Your task to perform on an android device: Open Yahoo.com Image 0: 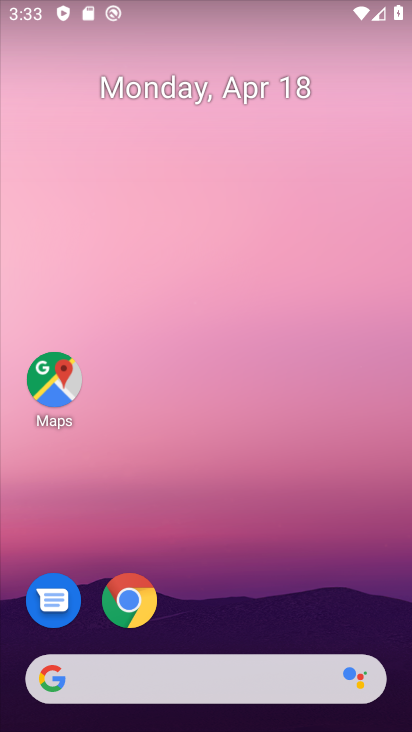
Step 0: click (136, 595)
Your task to perform on an android device: Open Yahoo.com Image 1: 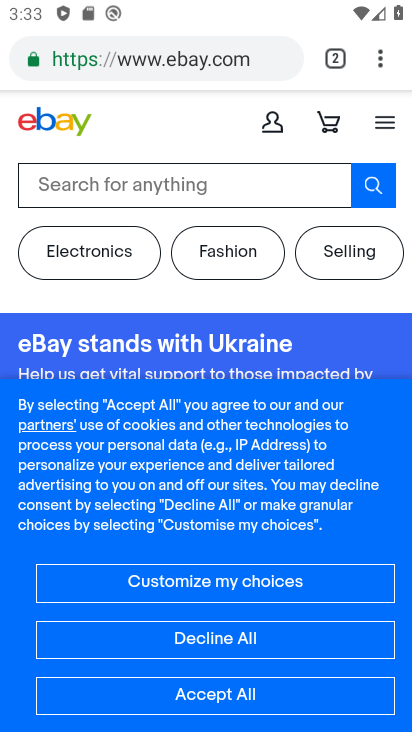
Step 1: click (324, 58)
Your task to perform on an android device: Open Yahoo.com Image 2: 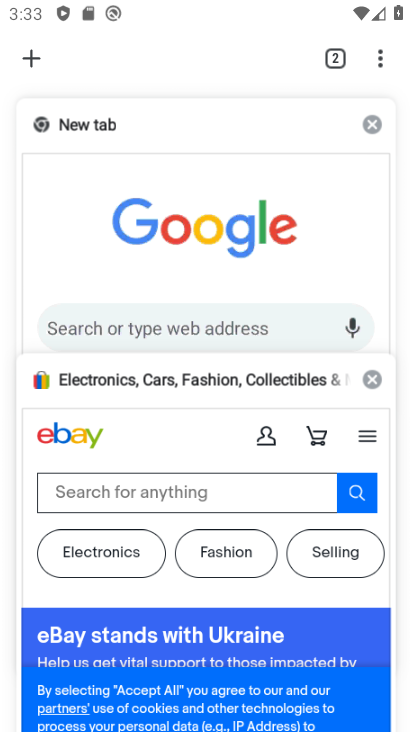
Step 2: click (37, 49)
Your task to perform on an android device: Open Yahoo.com Image 3: 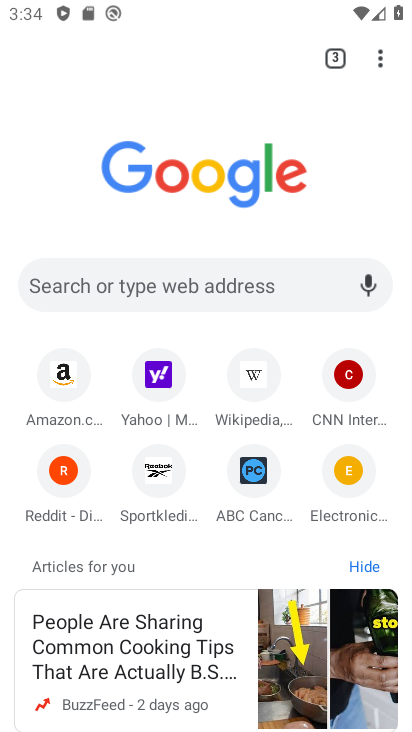
Step 3: click (122, 284)
Your task to perform on an android device: Open Yahoo.com Image 4: 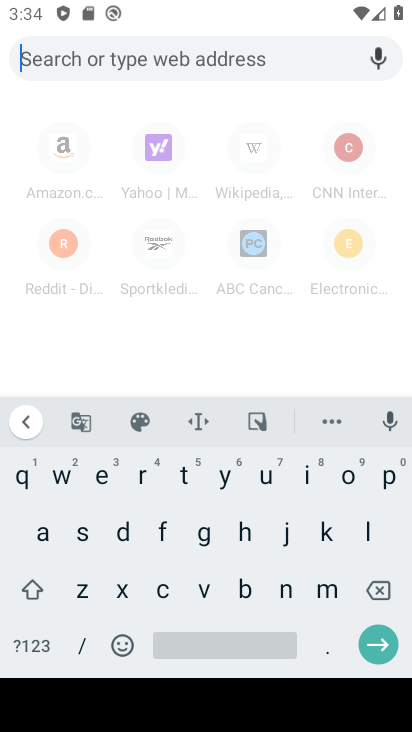
Step 4: click (156, 132)
Your task to perform on an android device: Open Yahoo.com Image 5: 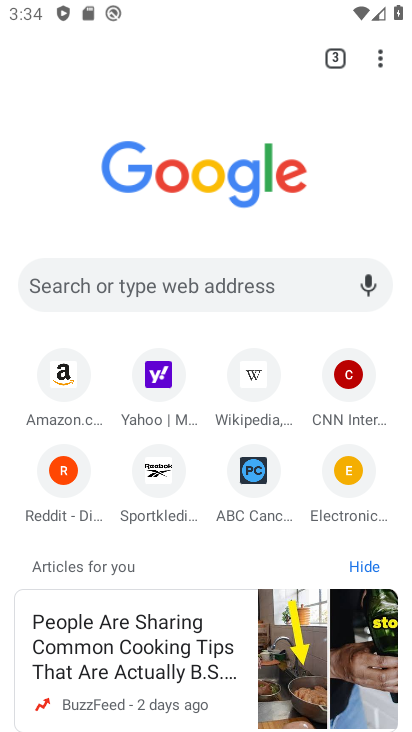
Step 5: click (142, 375)
Your task to perform on an android device: Open Yahoo.com Image 6: 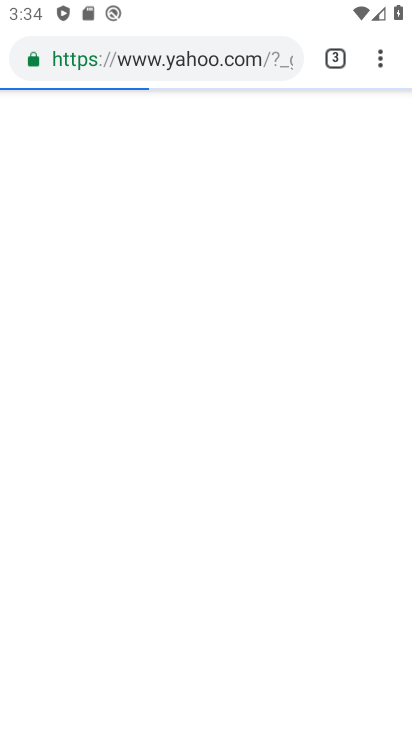
Step 6: task complete